Your task to perform on an android device: Search for sushi restaurants on Maps Image 0: 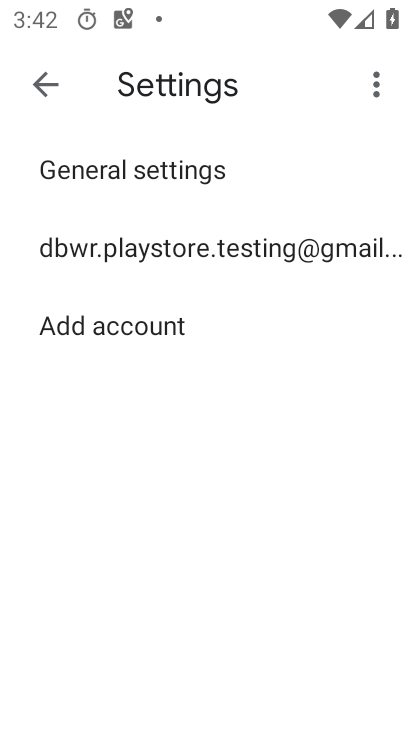
Step 0: press home button
Your task to perform on an android device: Search for sushi restaurants on Maps Image 1: 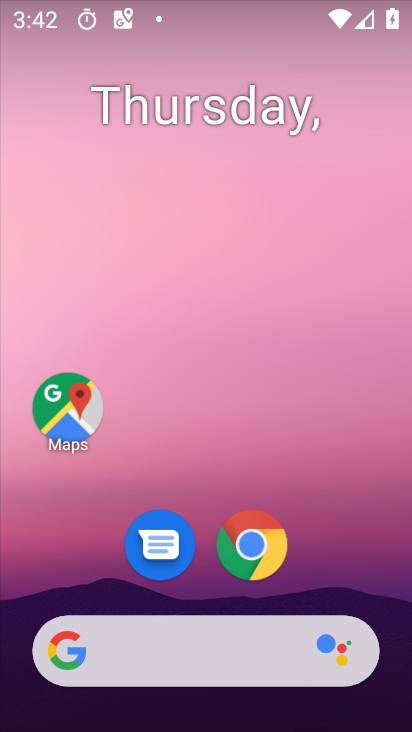
Step 1: drag from (232, 720) to (242, 89)
Your task to perform on an android device: Search for sushi restaurants on Maps Image 2: 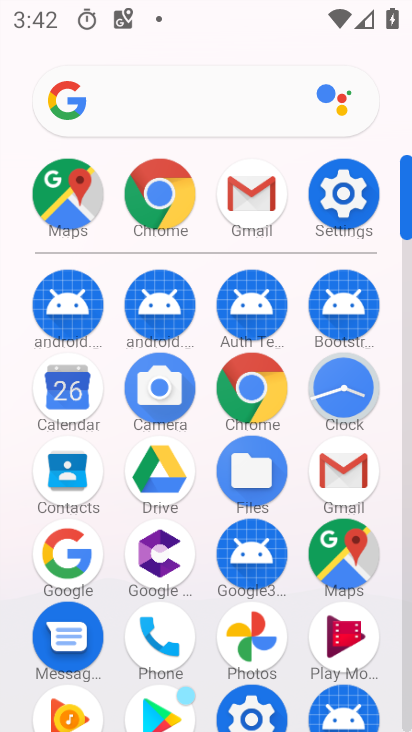
Step 2: click (339, 550)
Your task to perform on an android device: Search for sushi restaurants on Maps Image 3: 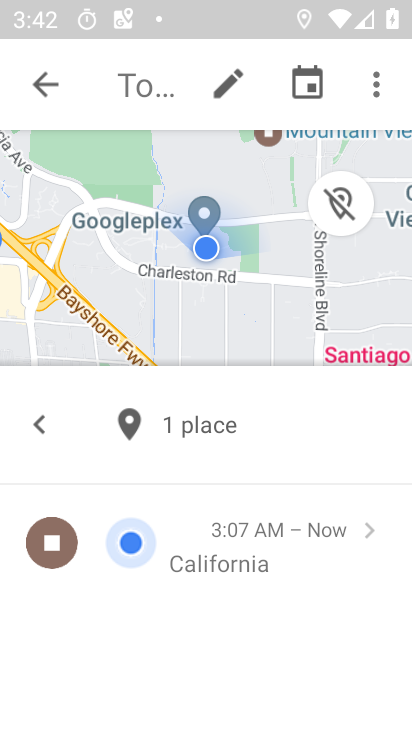
Step 3: click (49, 76)
Your task to perform on an android device: Search for sushi restaurants on Maps Image 4: 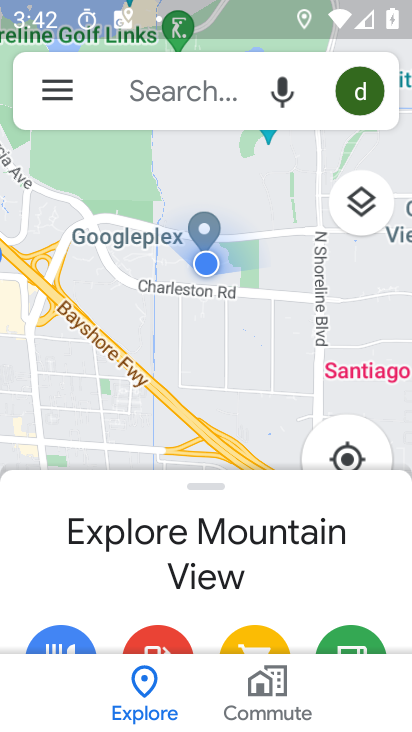
Step 4: click (215, 83)
Your task to perform on an android device: Search for sushi restaurants on Maps Image 5: 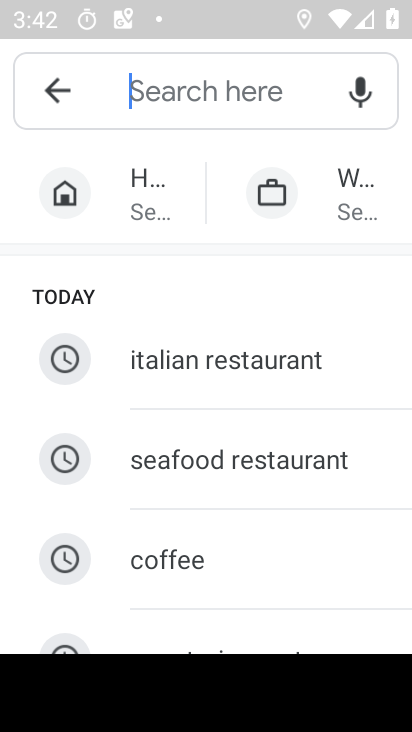
Step 5: type "sushi restaurants"
Your task to perform on an android device: Search for sushi restaurants on Maps Image 6: 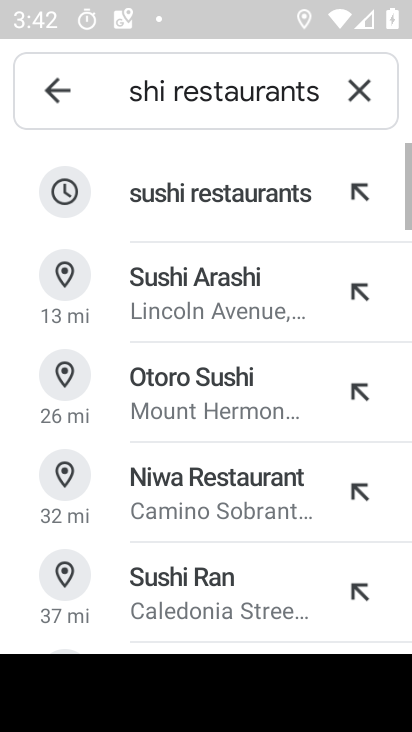
Step 6: click (177, 191)
Your task to perform on an android device: Search for sushi restaurants on Maps Image 7: 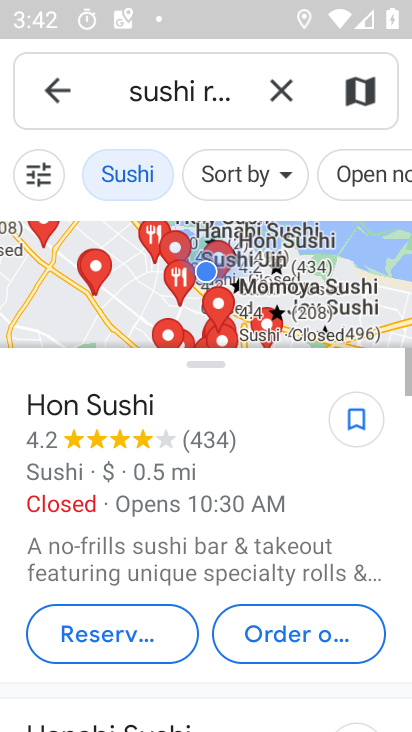
Step 7: task complete